Your task to perform on an android device: toggle show notifications on the lock screen Image 0: 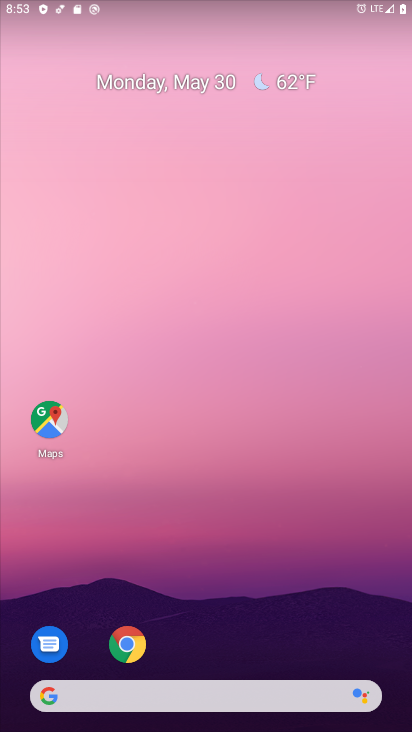
Step 0: drag from (356, 653) to (280, 153)
Your task to perform on an android device: toggle show notifications on the lock screen Image 1: 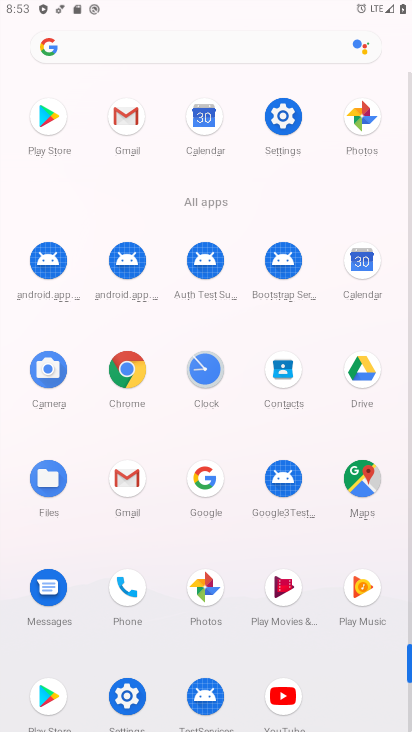
Step 1: click (408, 635)
Your task to perform on an android device: toggle show notifications on the lock screen Image 2: 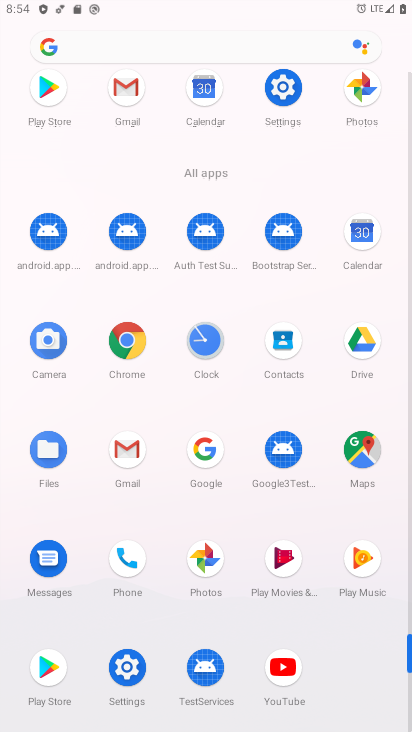
Step 2: click (126, 670)
Your task to perform on an android device: toggle show notifications on the lock screen Image 3: 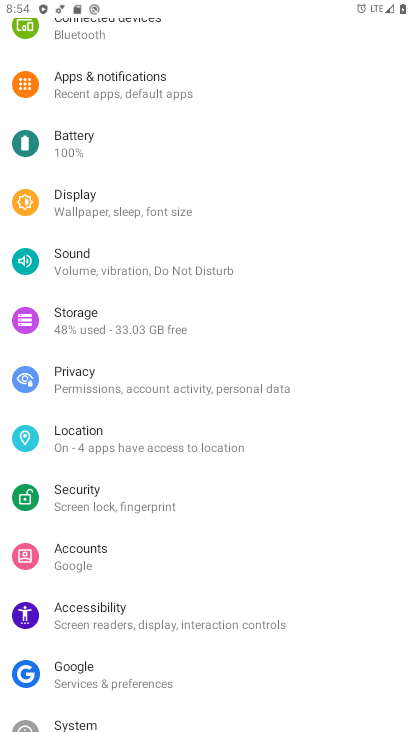
Step 3: click (126, 670)
Your task to perform on an android device: toggle show notifications on the lock screen Image 4: 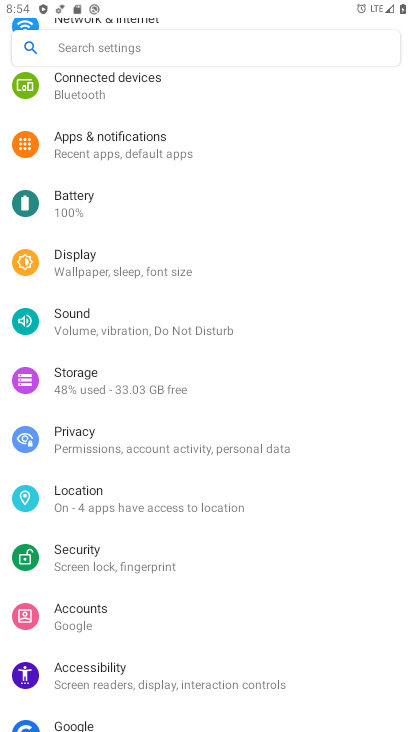
Step 4: click (98, 151)
Your task to perform on an android device: toggle show notifications on the lock screen Image 5: 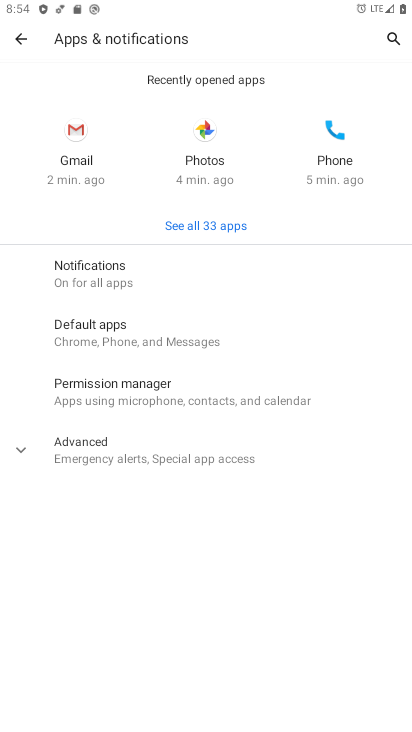
Step 5: click (16, 448)
Your task to perform on an android device: toggle show notifications on the lock screen Image 6: 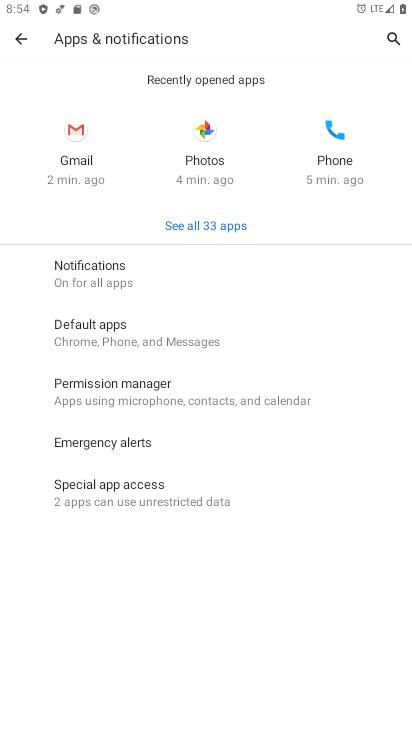
Step 6: click (85, 269)
Your task to perform on an android device: toggle show notifications on the lock screen Image 7: 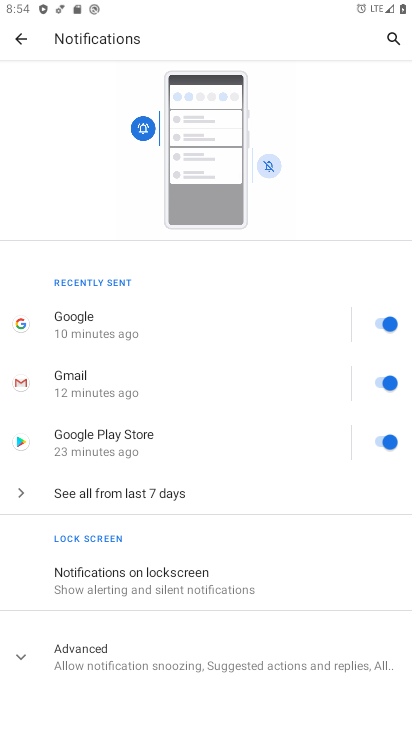
Step 7: drag from (216, 563) to (257, 211)
Your task to perform on an android device: toggle show notifications on the lock screen Image 8: 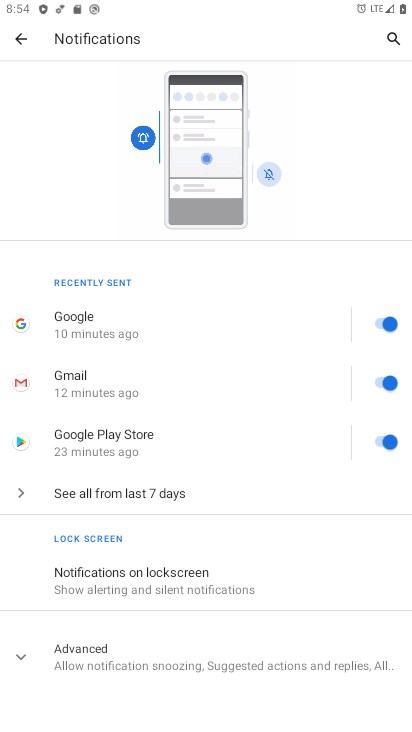
Step 8: click (20, 660)
Your task to perform on an android device: toggle show notifications on the lock screen Image 9: 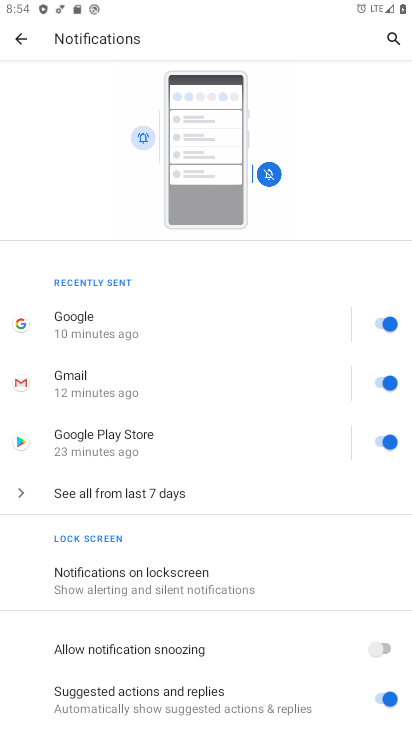
Step 9: task complete